Your task to perform on an android device: add a label to a message in the gmail app Image 0: 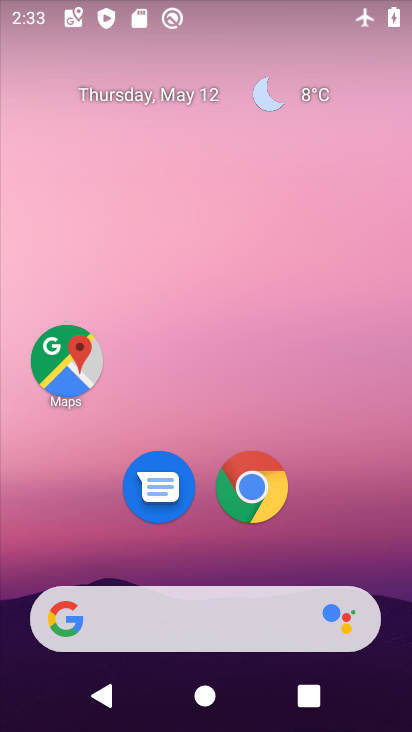
Step 0: drag from (337, 540) to (297, 165)
Your task to perform on an android device: add a label to a message in the gmail app Image 1: 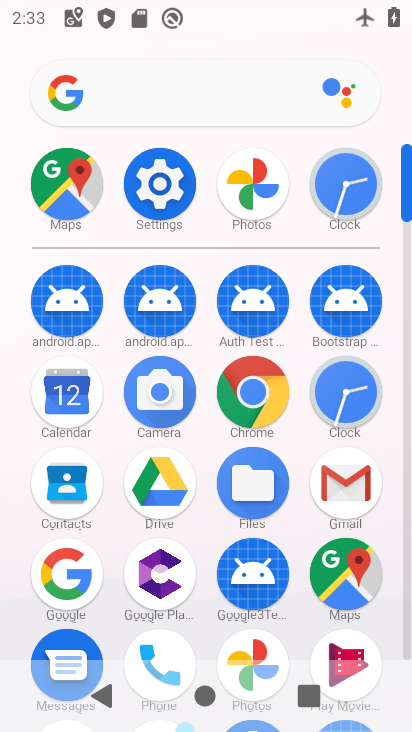
Step 1: click (340, 480)
Your task to perform on an android device: add a label to a message in the gmail app Image 2: 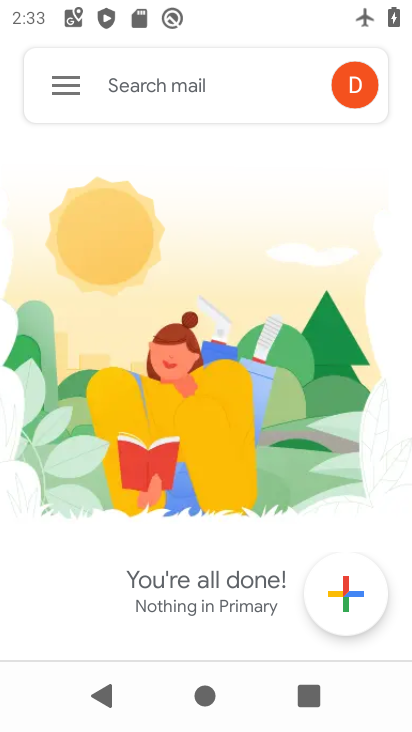
Step 2: click (59, 86)
Your task to perform on an android device: add a label to a message in the gmail app Image 3: 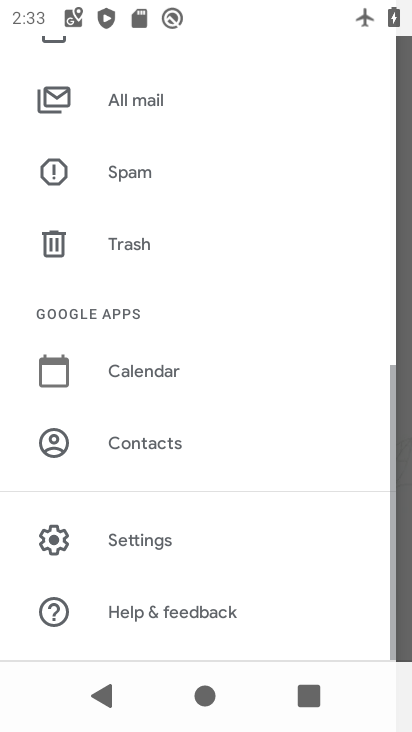
Step 3: drag from (182, 278) to (219, 578)
Your task to perform on an android device: add a label to a message in the gmail app Image 4: 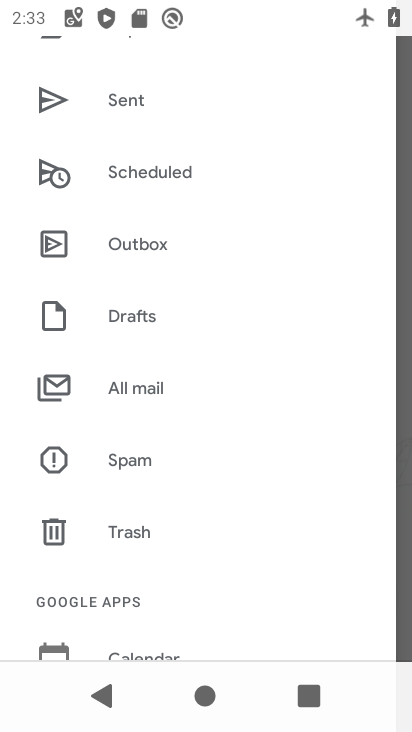
Step 4: click (119, 386)
Your task to perform on an android device: add a label to a message in the gmail app Image 5: 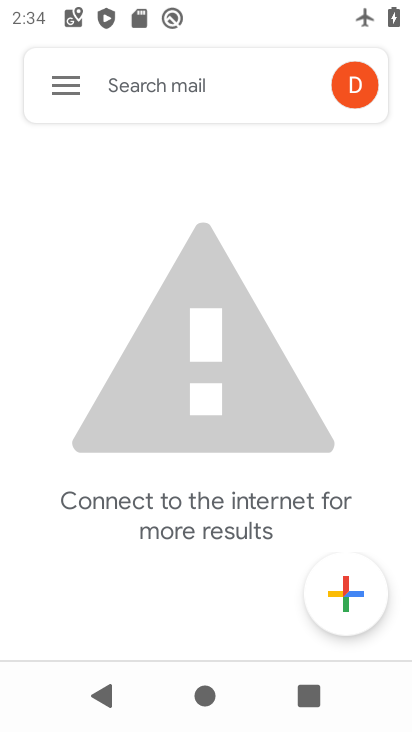
Step 5: task complete